Your task to perform on an android device: toggle location history Image 0: 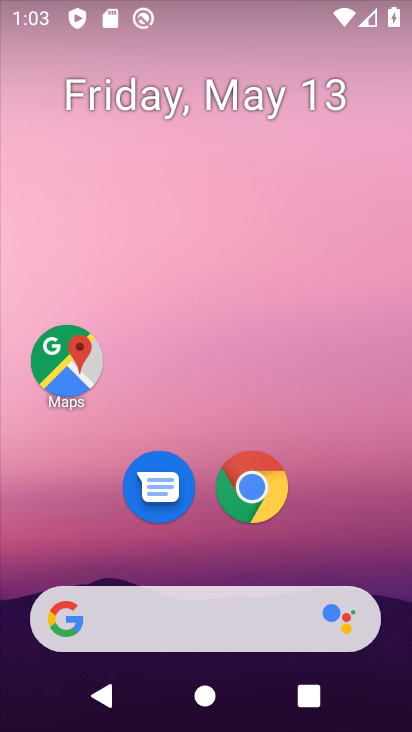
Step 0: drag from (318, 494) to (316, 155)
Your task to perform on an android device: toggle location history Image 1: 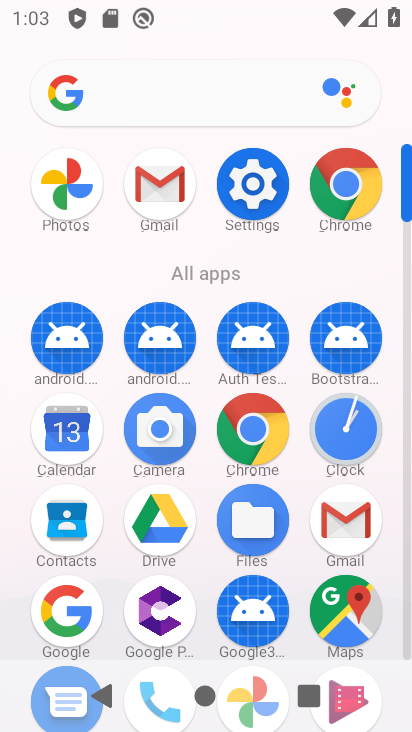
Step 1: click (258, 191)
Your task to perform on an android device: toggle location history Image 2: 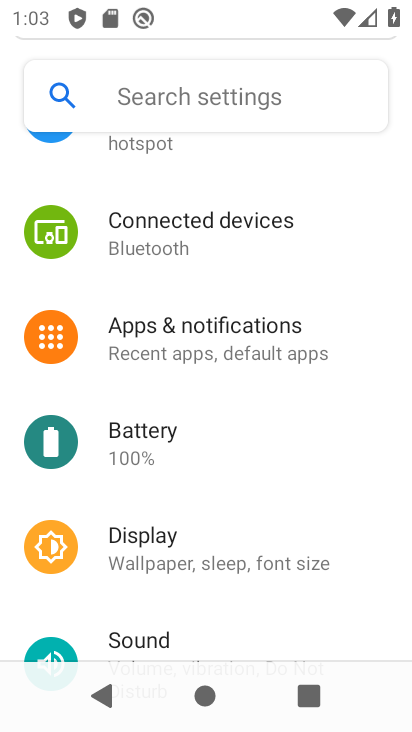
Step 2: drag from (253, 634) to (306, 245)
Your task to perform on an android device: toggle location history Image 3: 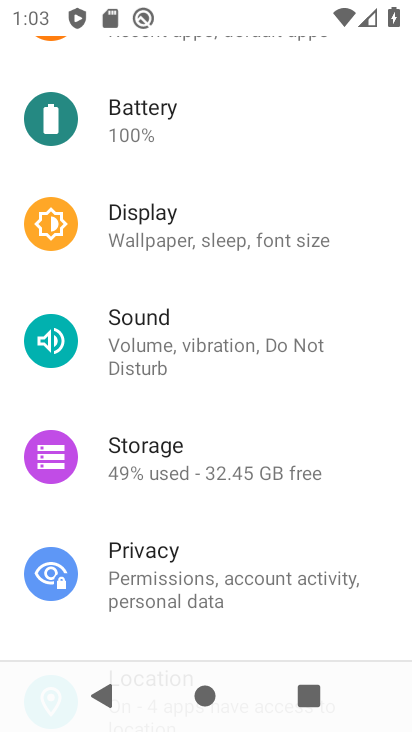
Step 3: drag from (231, 532) to (258, 216)
Your task to perform on an android device: toggle location history Image 4: 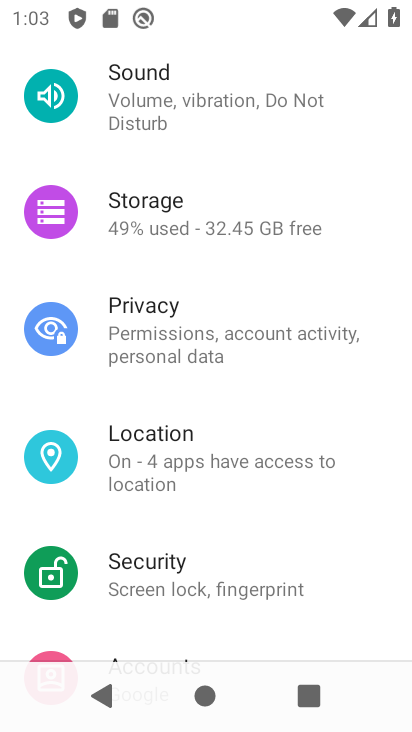
Step 4: click (214, 471)
Your task to perform on an android device: toggle location history Image 5: 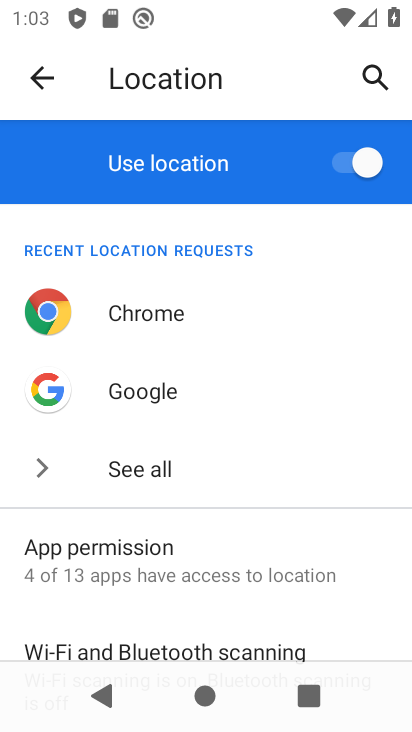
Step 5: drag from (242, 597) to (253, 320)
Your task to perform on an android device: toggle location history Image 6: 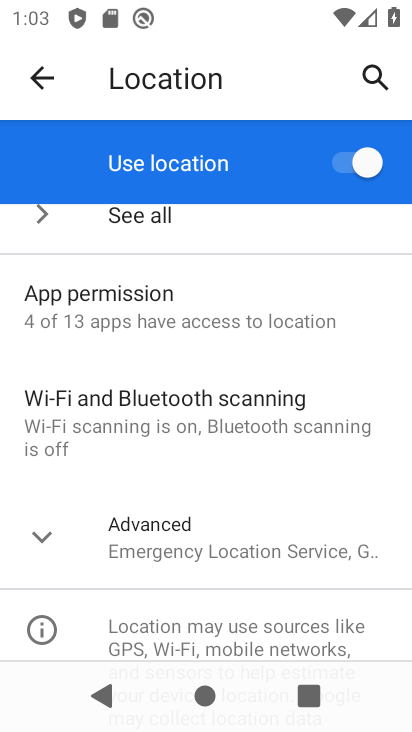
Step 6: drag from (262, 567) to (282, 298)
Your task to perform on an android device: toggle location history Image 7: 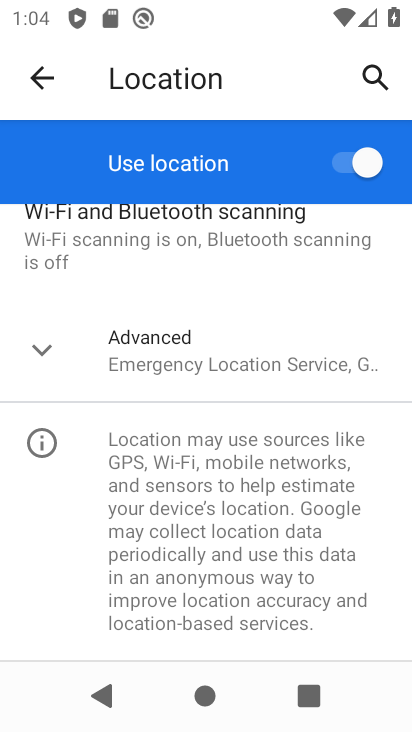
Step 7: click (218, 369)
Your task to perform on an android device: toggle location history Image 8: 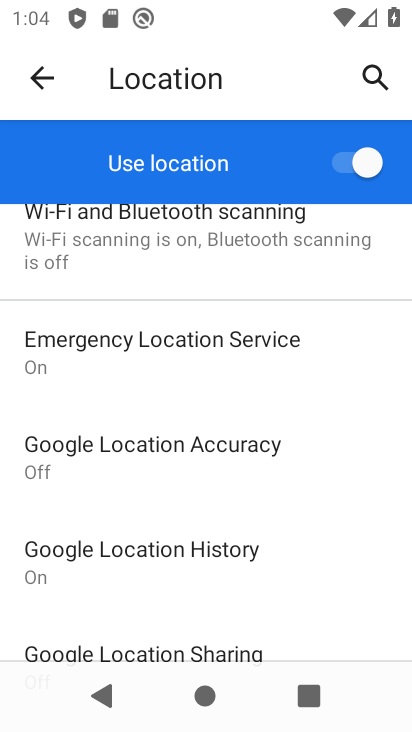
Step 8: click (175, 557)
Your task to perform on an android device: toggle location history Image 9: 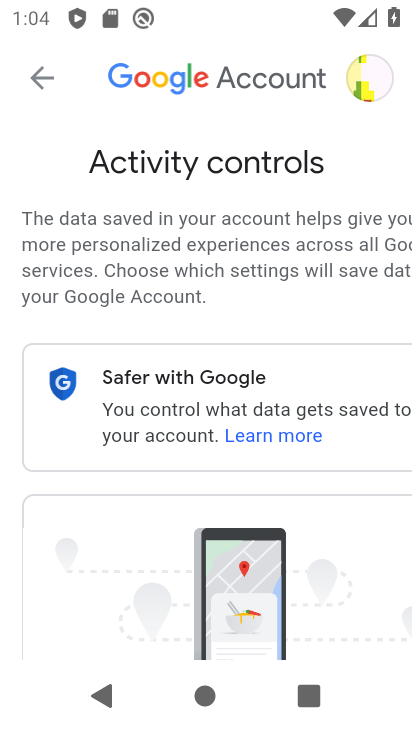
Step 9: drag from (309, 622) to (349, 283)
Your task to perform on an android device: toggle location history Image 10: 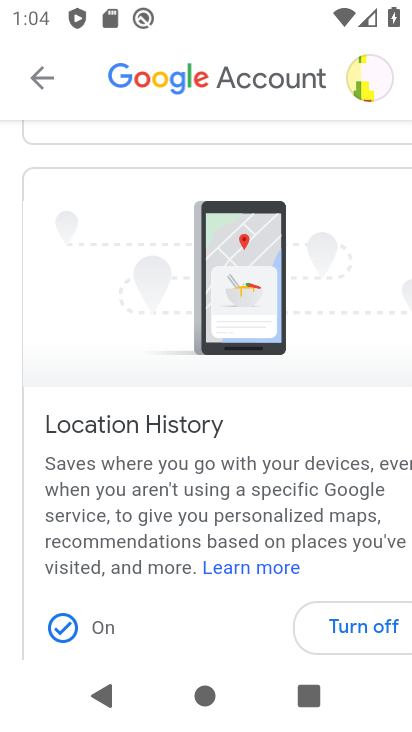
Step 10: click (351, 619)
Your task to perform on an android device: toggle location history Image 11: 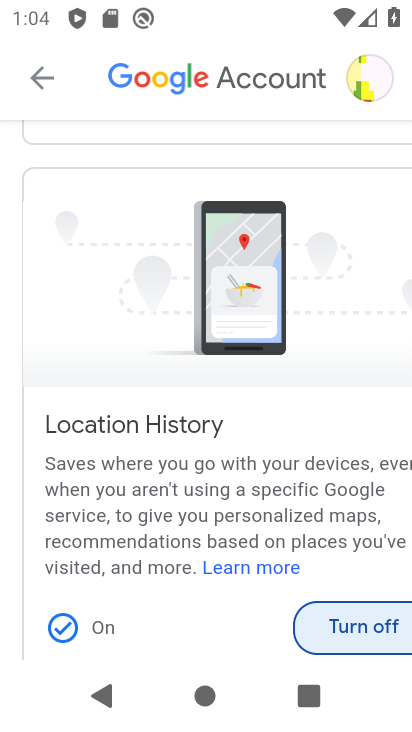
Step 11: click (358, 624)
Your task to perform on an android device: toggle location history Image 12: 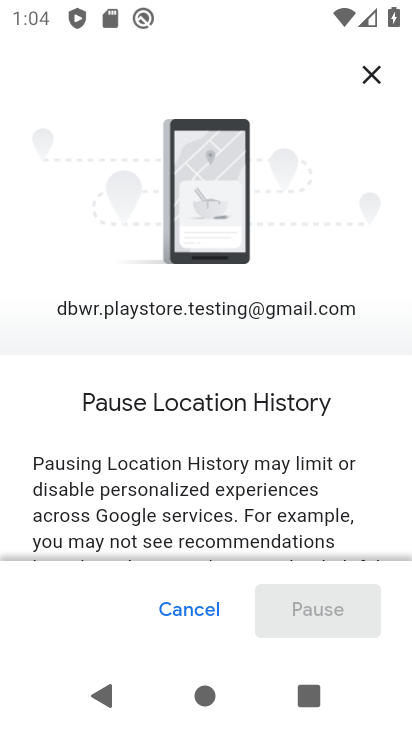
Step 12: drag from (263, 512) to (268, 276)
Your task to perform on an android device: toggle location history Image 13: 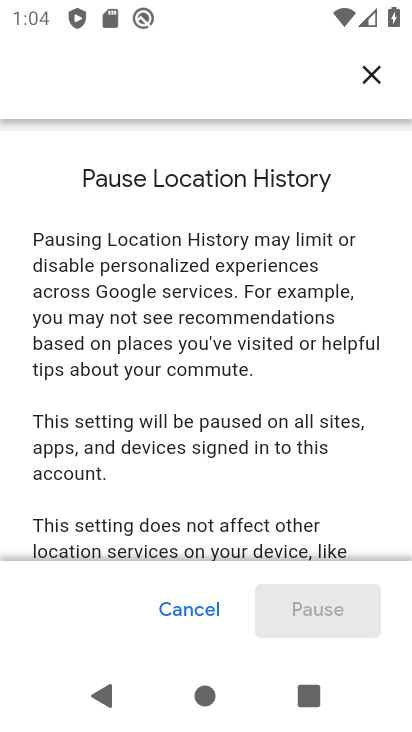
Step 13: drag from (226, 508) to (225, 230)
Your task to perform on an android device: toggle location history Image 14: 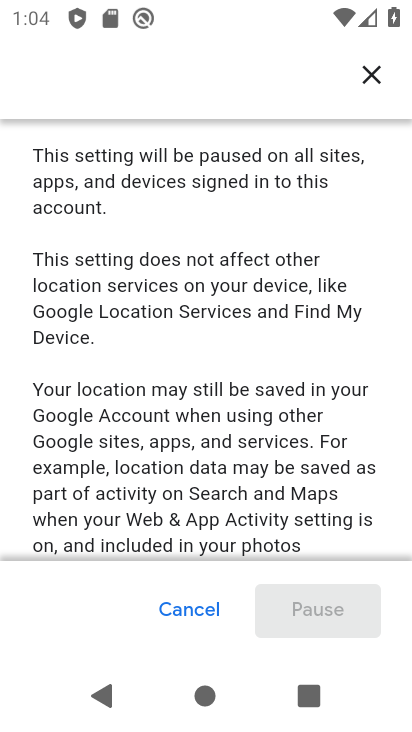
Step 14: drag from (252, 516) to (263, 216)
Your task to perform on an android device: toggle location history Image 15: 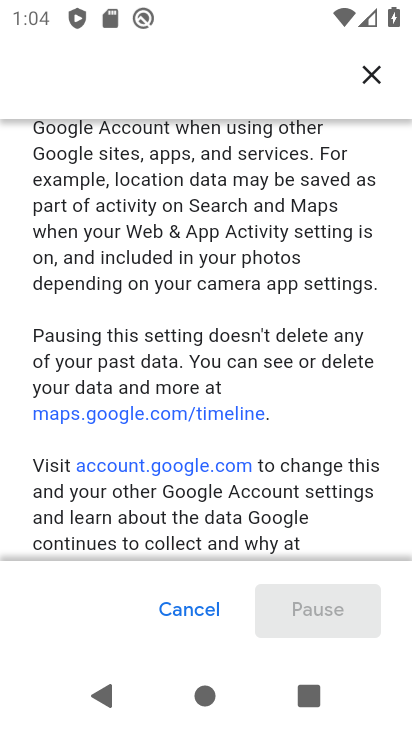
Step 15: drag from (281, 516) to (292, 213)
Your task to perform on an android device: toggle location history Image 16: 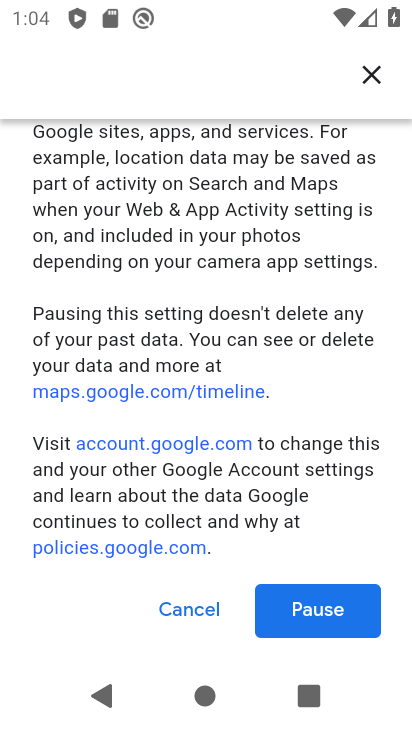
Step 16: click (317, 612)
Your task to perform on an android device: toggle location history Image 17: 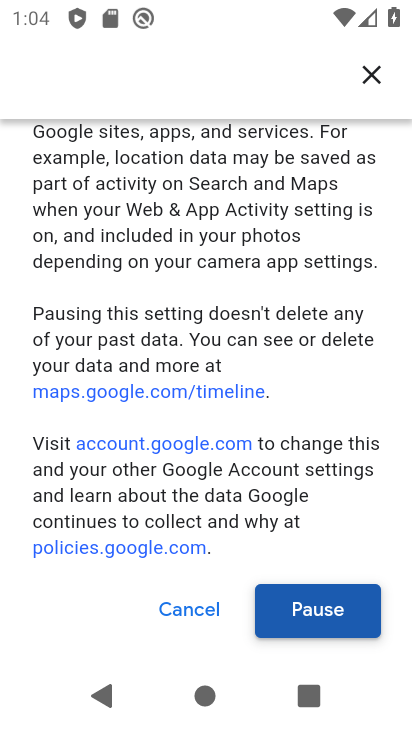
Step 17: click (320, 610)
Your task to perform on an android device: toggle location history Image 18: 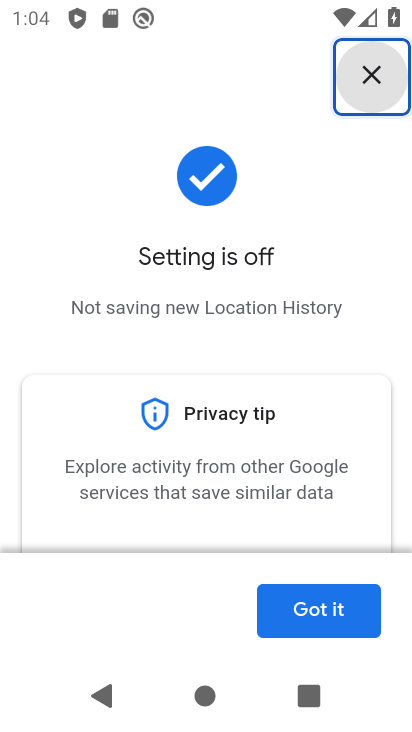
Step 18: task complete